Your task to perform on an android device: find snoozed emails in the gmail app Image 0: 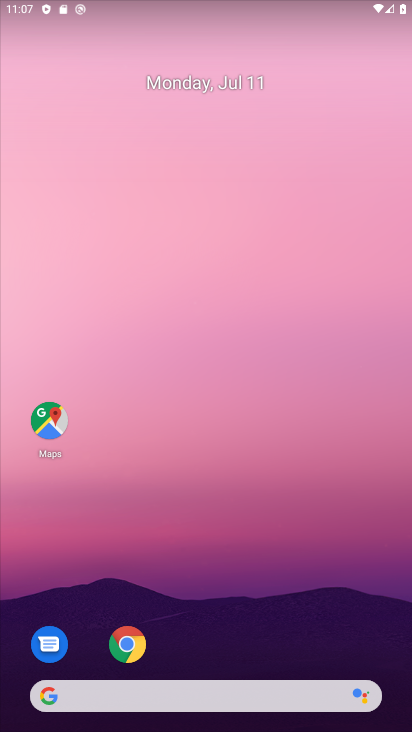
Step 0: drag from (395, 658) to (391, 132)
Your task to perform on an android device: find snoozed emails in the gmail app Image 1: 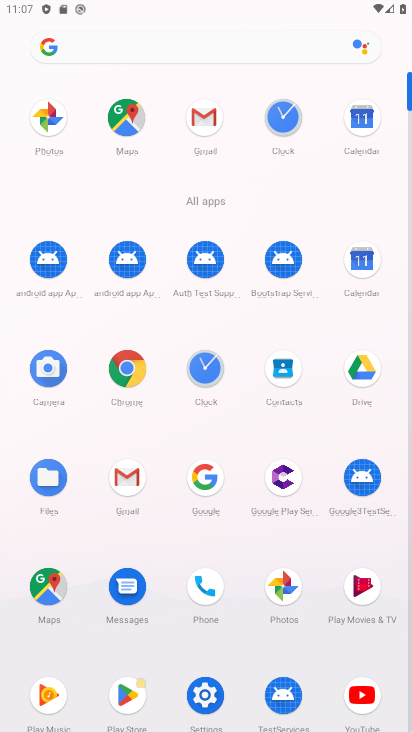
Step 1: click (134, 481)
Your task to perform on an android device: find snoozed emails in the gmail app Image 2: 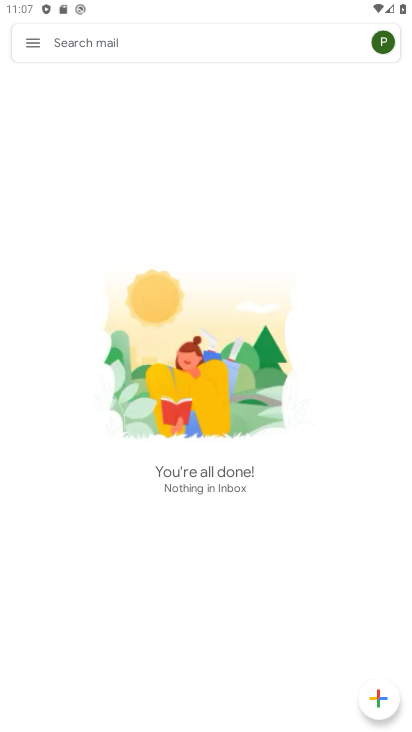
Step 2: click (31, 45)
Your task to perform on an android device: find snoozed emails in the gmail app Image 3: 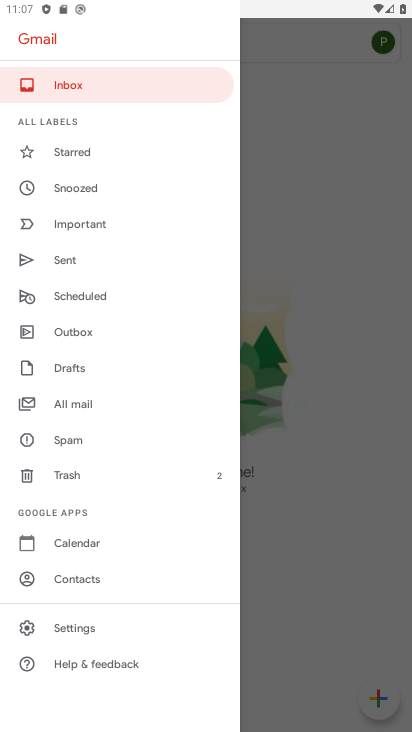
Step 3: click (82, 188)
Your task to perform on an android device: find snoozed emails in the gmail app Image 4: 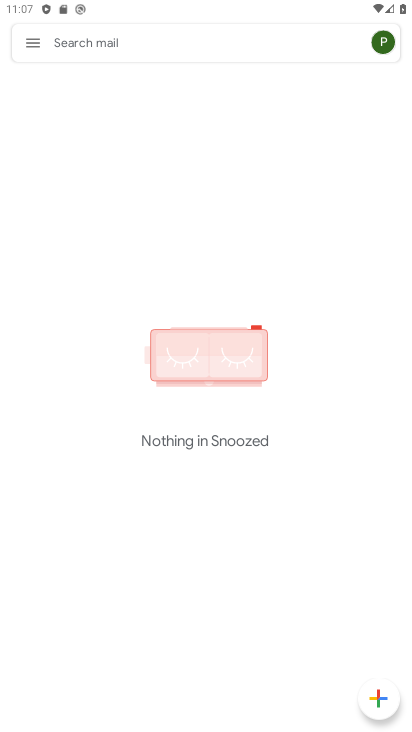
Step 4: task complete